Your task to perform on an android device: Search for sushi restaurants on Maps Image 0: 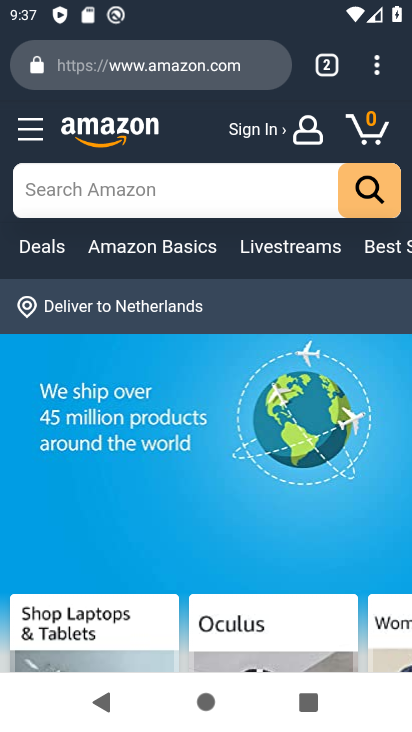
Step 0: press home button
Your task to perform on an android device: Search for sushi restaurants on Maps Image 1: 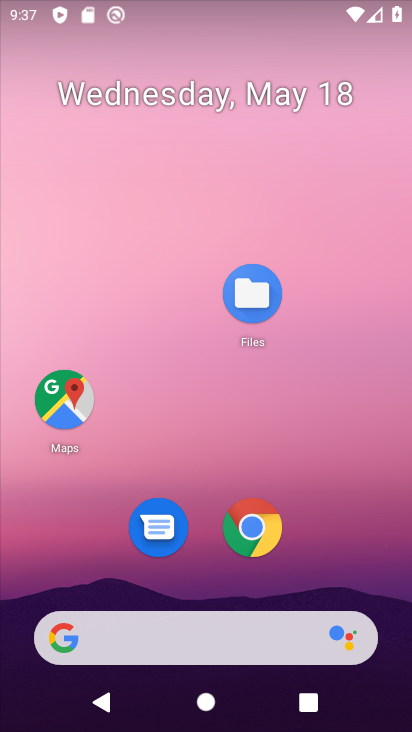
Step 1: click (59, 414)
Your task to perform on an android device: Search for sushi restaurants on Maps Image 2: 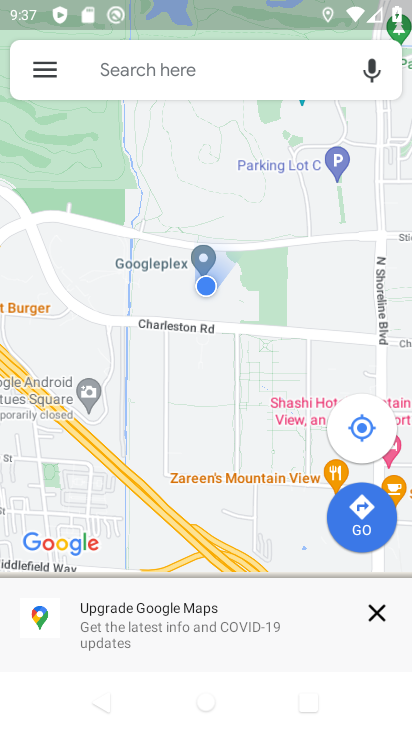
Step 2: click (138, 72)
Your task to perform on an android device: Search for sushi restaurants on Maps Image 3: 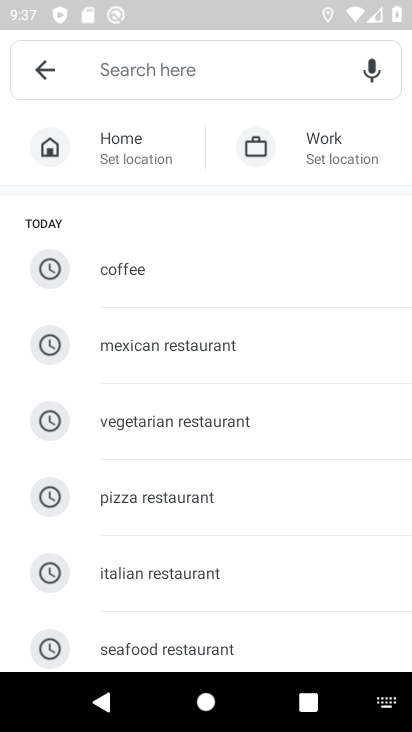
Step 3: drag from (288, 553) to (325, 172)
Your task to perform on an android device: Search for sushi restaurants on Maps Image 4: 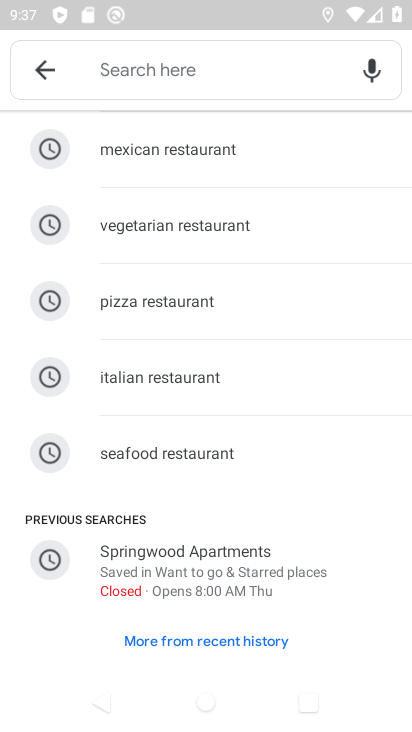
Step 4: drag from (299, 279) to (291, 629)
Your task to perform on an android device: Search for sushi restaurants on Maps Image 5: 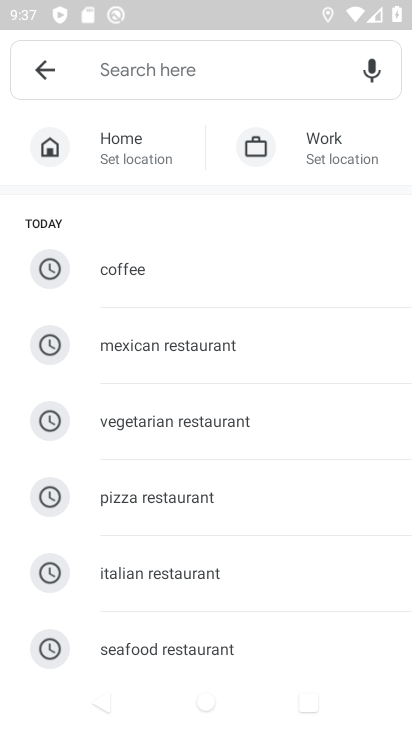
Step 5: click (176, 68)
Your task to perform on an android device: Search for sushi restaurants on Maps Image 6: 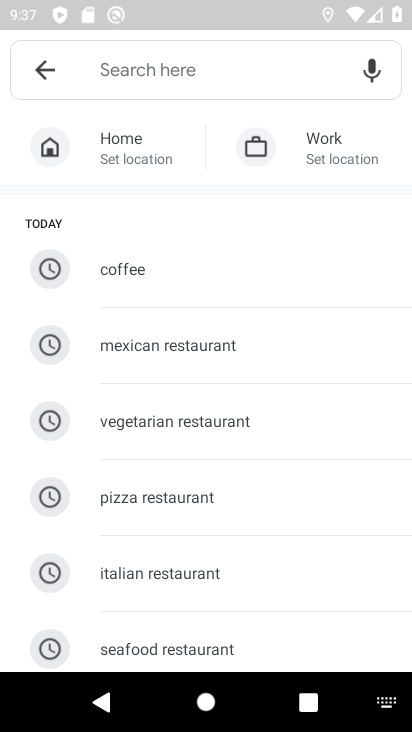
Step 6: type "sushi restaurant"
Your task to perform on an android device: Search for sushi restaurants on Maps Image 7: 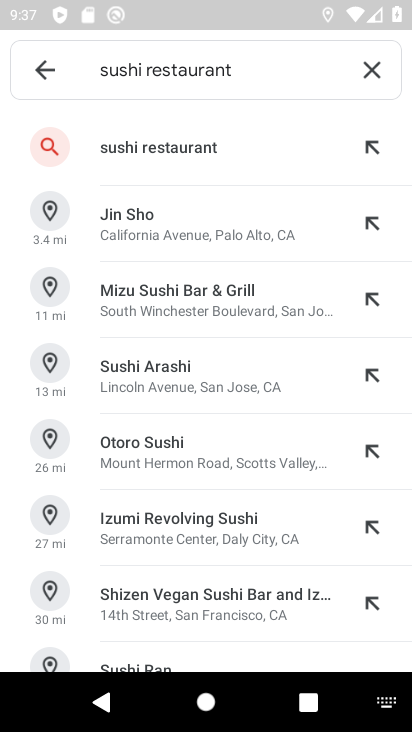
Step 7: click (231, 148)
Your task to perform on an android device: Search for sushi restaurants on Maps Image 8: 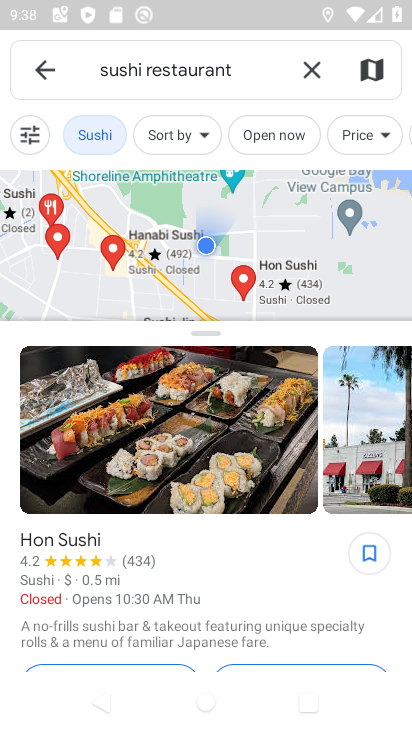
Step 8: task complete